Your task to perform on an android device: turn on priority inbox in the gmail app Image 0: 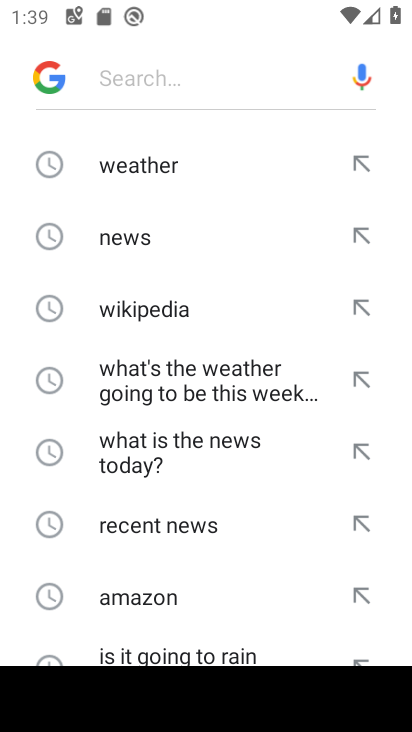
Step 0: press back button
Your task to perform on an android device: turn on priority inbox in the gmail app Image 1: 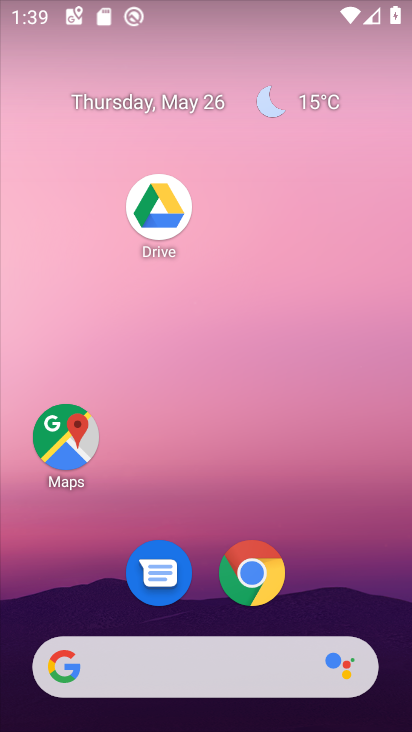
Step 1: drag from (336, 586) to (331, 106)
Your task to perform on an android device: turn on priority inbox in the gmail app Image 2: 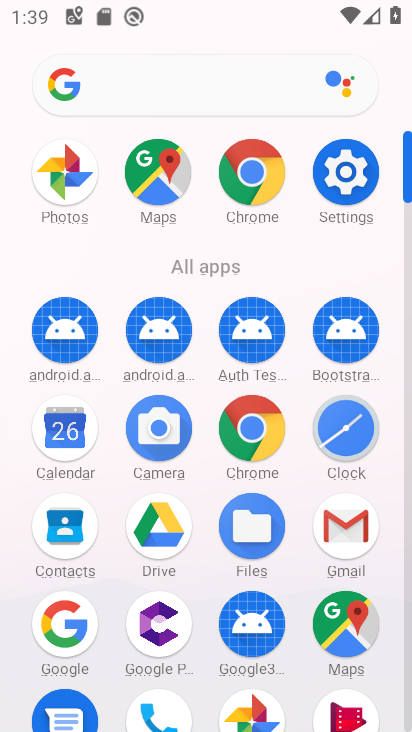
Step 2: click (332, 530)
Your task to perform on an android device: turn on priority inbox in the gmail app Image 3: 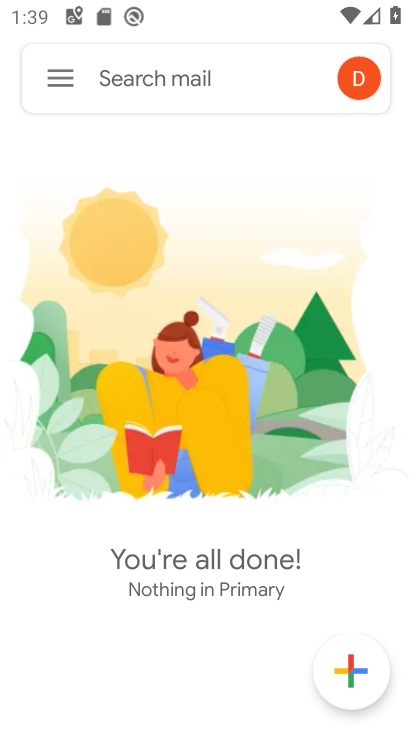
Step 3: click (68, 91)
Your task to perform on an android device: turn on priority inbox in the gmail app Image 4: 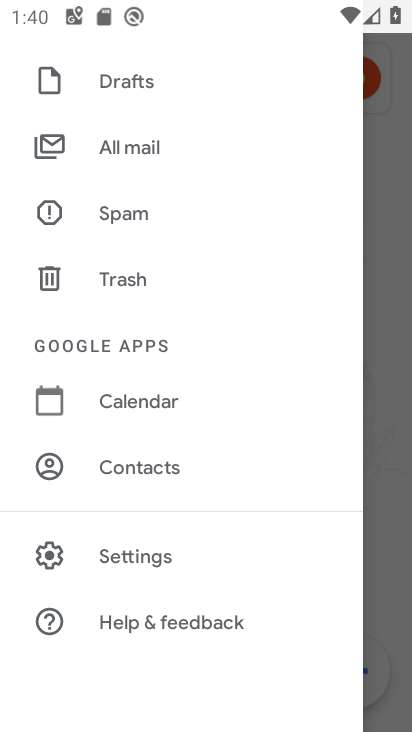
Step 4: click (138, 548)
Your task to perform on an android device: turn on priority inbox in the gmail app Image 5: 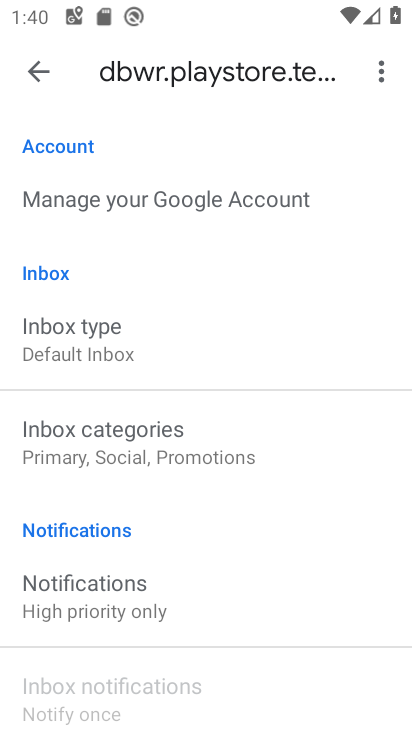
Step 5: click (121, 335)
Your task to perform on an android device: turn on priority inbox in the gmail app Image 6: 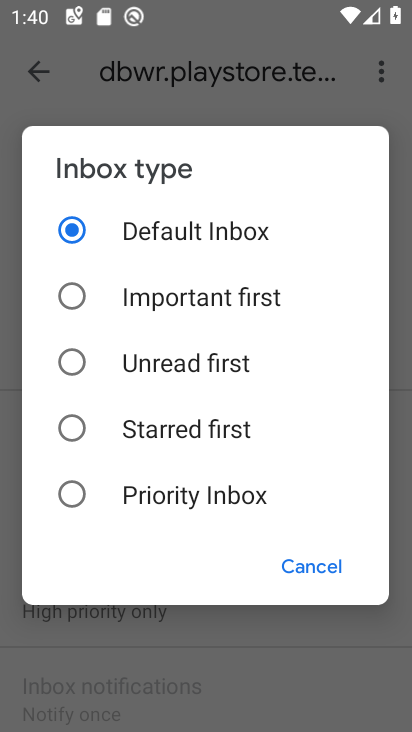
Step 6: click (181, 487)
Your task to perform on an android device: turn on priority inbox in the gmail app Image 7: 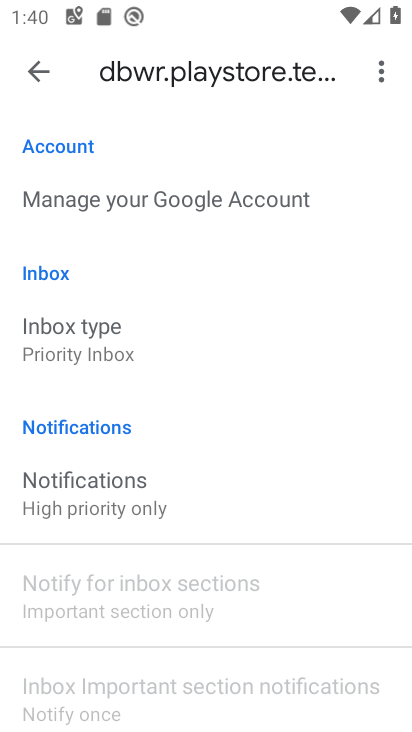
Step 7: task complete